Your task to perform on an android device: delete browsing data in the chrome app Image 0: 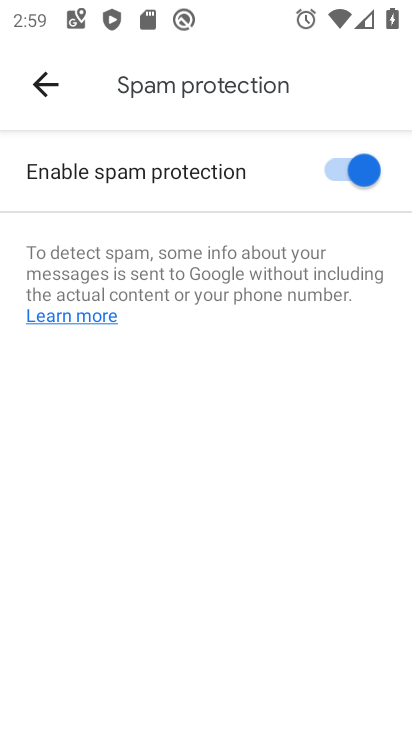
Step 0: press home button
Your task to perform on an android device: delete browsing data in the chrome app Image 1: 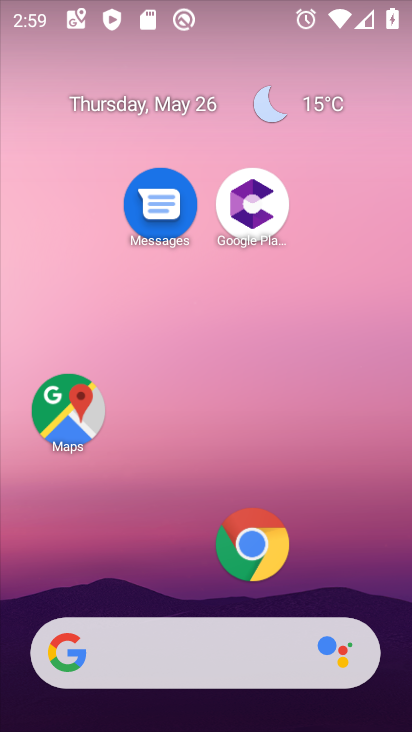
Step 1: click (244, 546)
Your task to perform on an android device: delete browsing data in the chrome app Image 2: 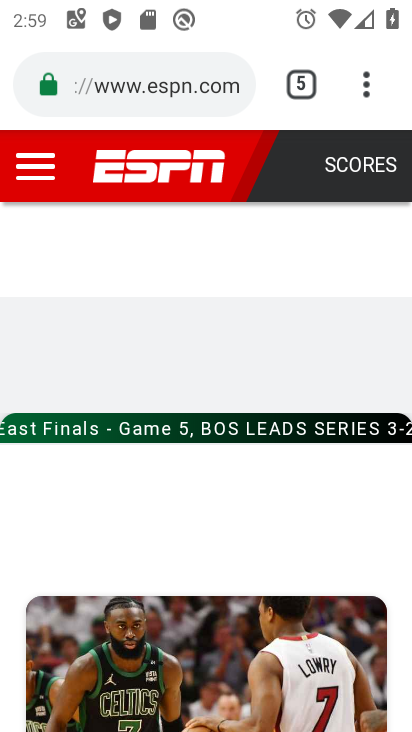
Step 2: click (348, 88)
Your task to perform on an android device: delete browsing data in the chrome app Image 3: 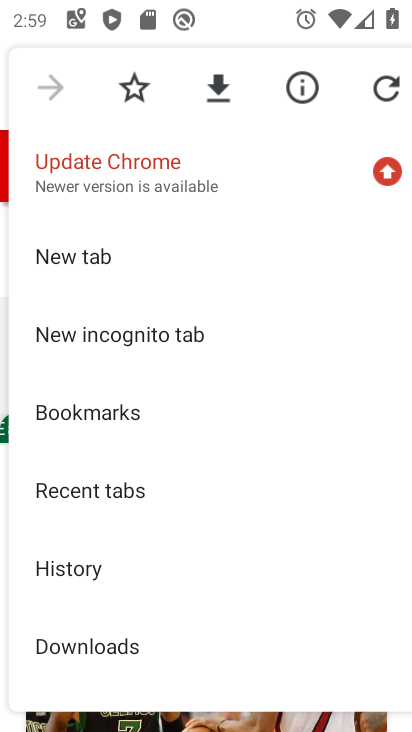
Step 3: click (83, 550)
Your task to perform on an android device: delete browsing data in the chrome app Image 4: 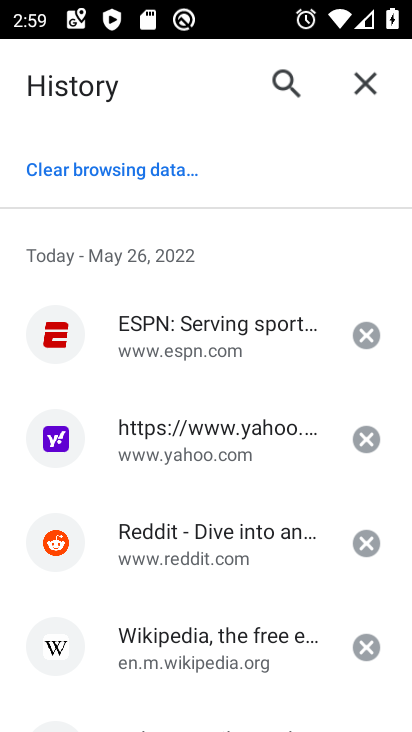
Step 4: click (165, 156)
Your task to perform on an android device: delete browsing data in the chrome app Image 5: 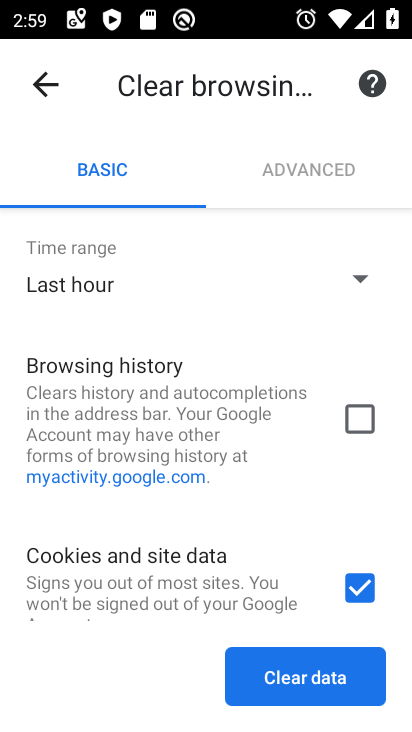
Step 5: click (338, 427)
Your task to perform on an android device: delete browsing data in the chrome app Image 6: 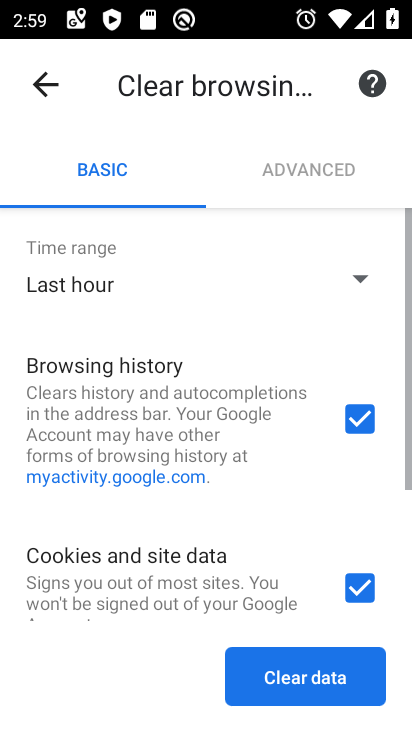
Step 6: click (354, 582)
Your task to perform on an android device: delete browsing data in the chrome app Image 7: 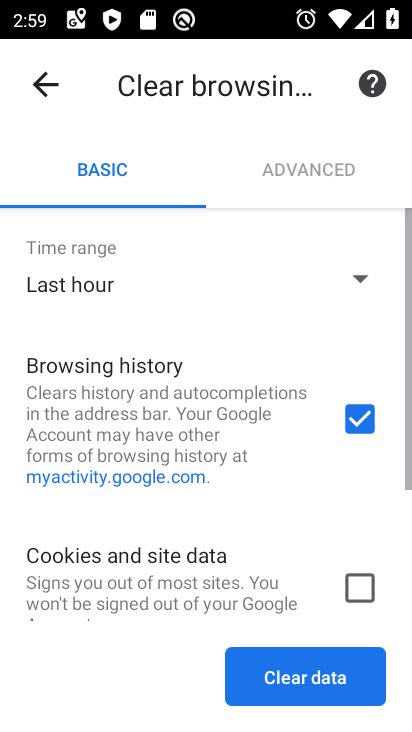
Step 7: click (261, 687)
Your task to perform on an android device: delete browsing data in the chrome app Image 8: 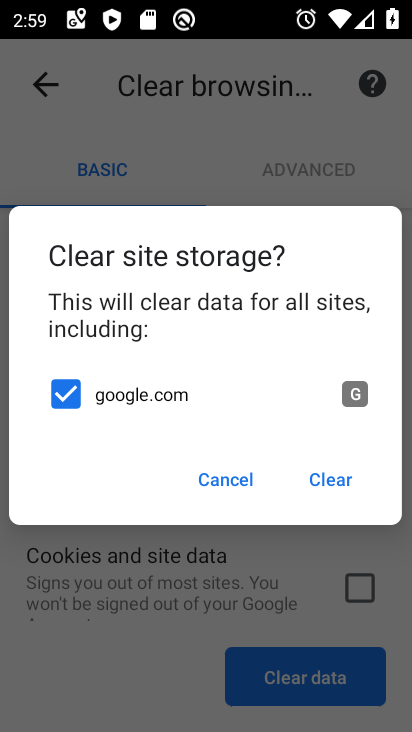
Step 8: click (327, 477)
Your task to perform on an android device: delete browsing data in the chrome app Image 9: 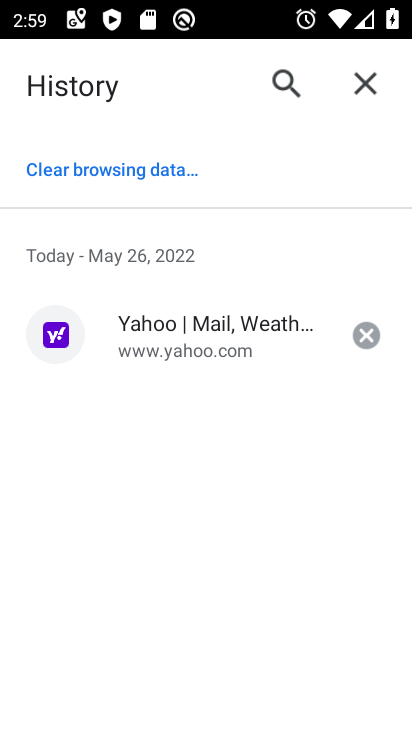
Step 9: task complete